Your task to perform on an android device: clear history in the chrome app Image 0: 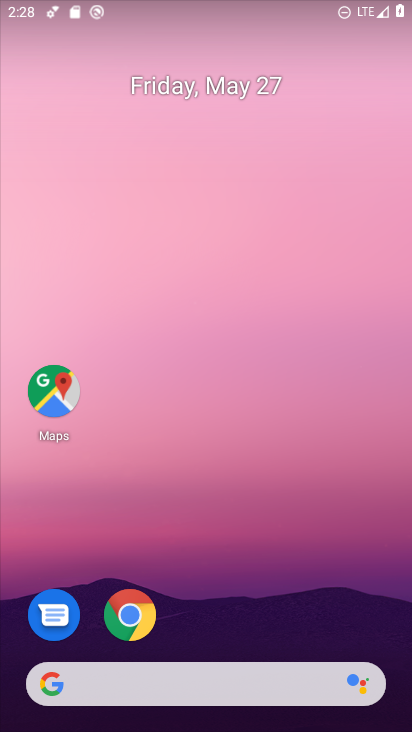
Step 0: drag from (220, 604) to (270, 171)
Your task to perform on an android device: clear history in the chrome app Image 1: 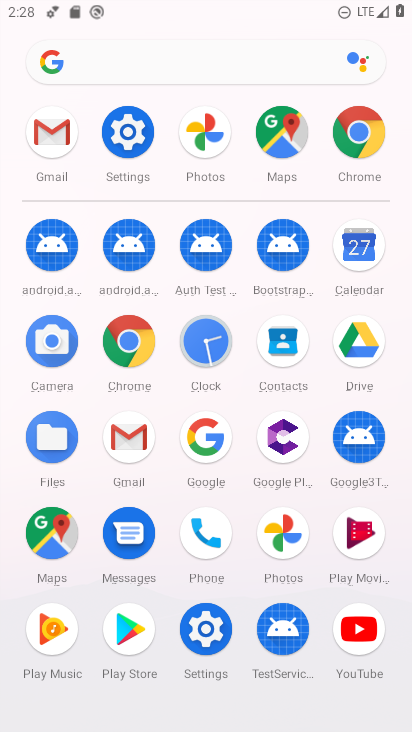
Step 1: click (119, 358)
Your task to perform on an android device: clear history in the chrome app Image 2: 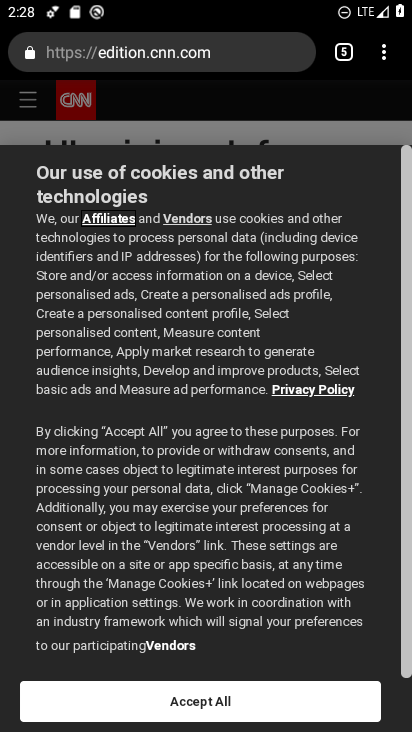
Step 2: click (380, 48)
Your task to perform on an android device: clear history in the chrome app Image 3: 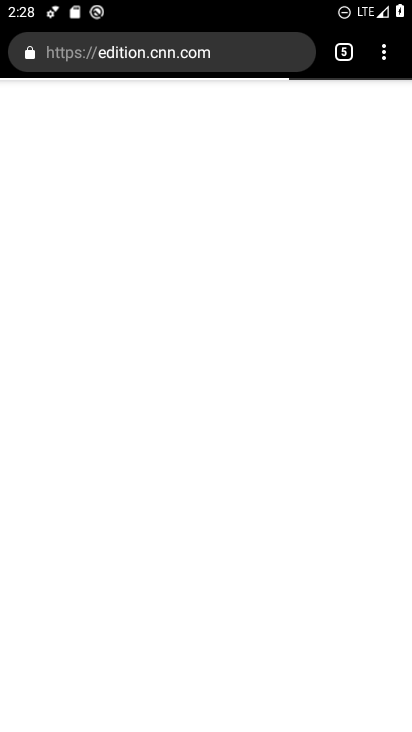
Step 3: click (386, 60)
Your task to perform on an android device: clear history in the chrome app Image 4: 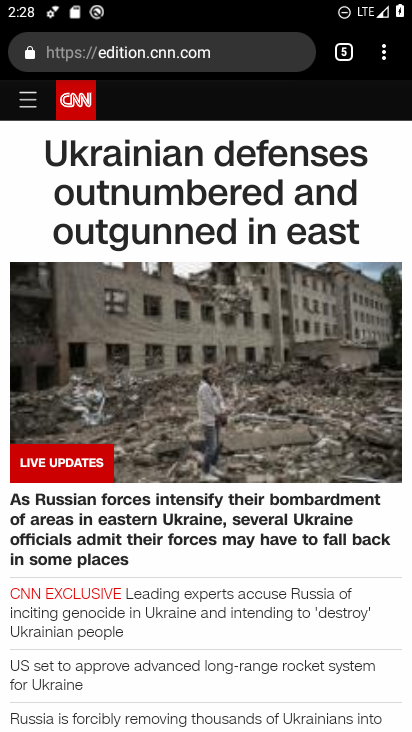
Step 4: click (382, 65)
Your task to perform on an android device: clear history in the chrome app Image 5: 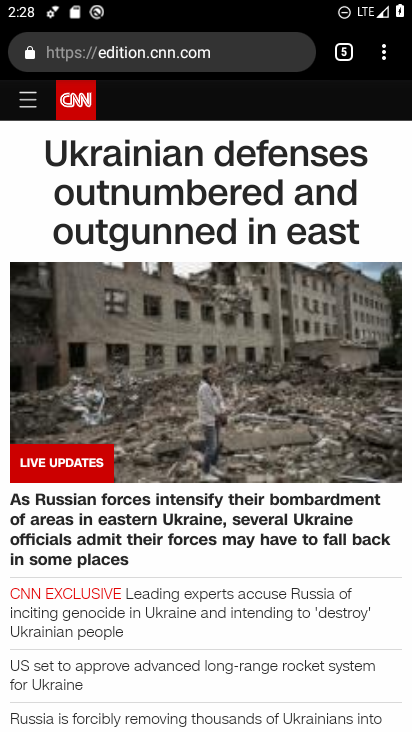
Step 5: click (380, 62)
Your task to perform on an android device: clear history in the chrome app Image 6: 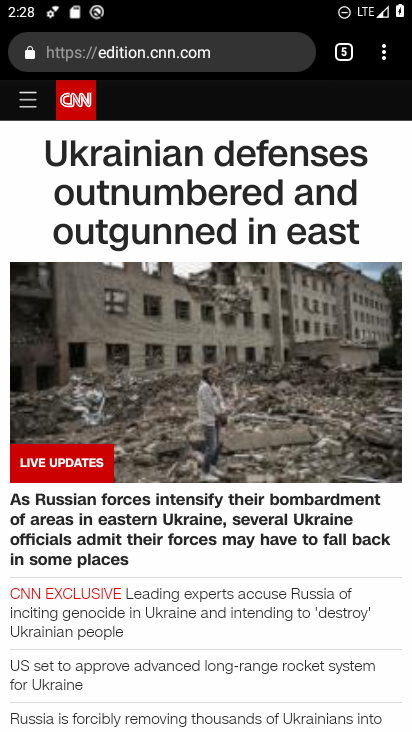
Step 6: click (385, 56)
Your task to perform on an android device: clear history in the chrome app Image 7: 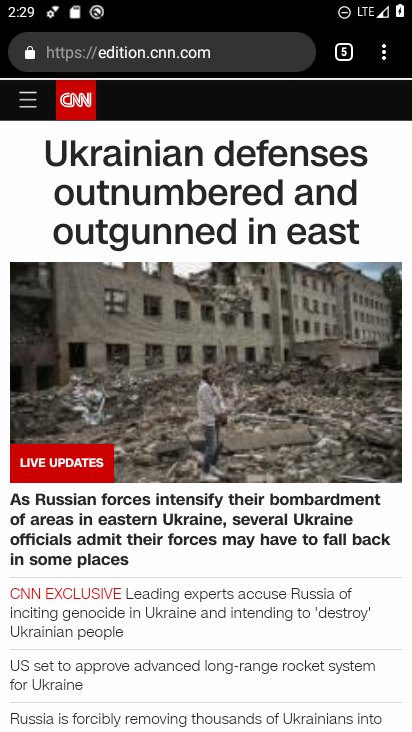
Step 7: click (385, 56)
Your task to perform on an android device: clear history in the chrome app Image 8: 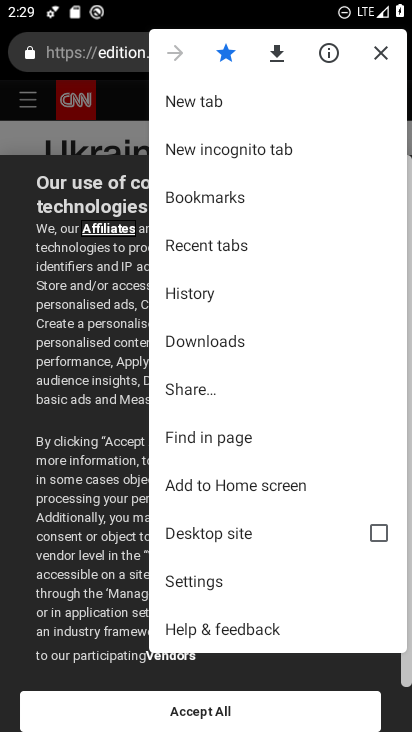
Step 8: click (211, 302)
Your task to perform on an android device: clear history in the chrome app Image 9: 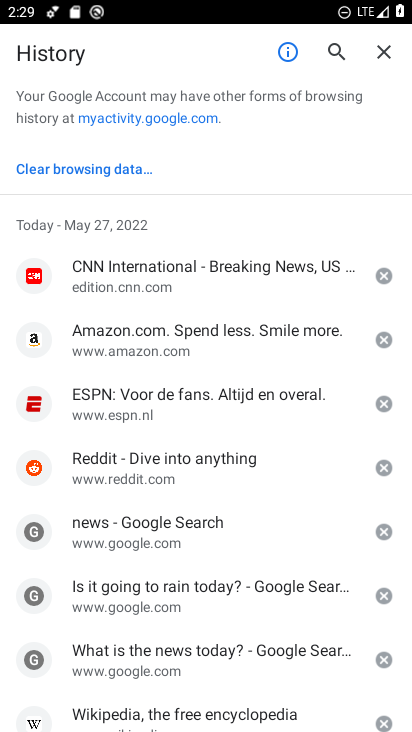
Step 9: click (82, 177)
Your task to perform on an android device: clear history in the chrome app Image 10: 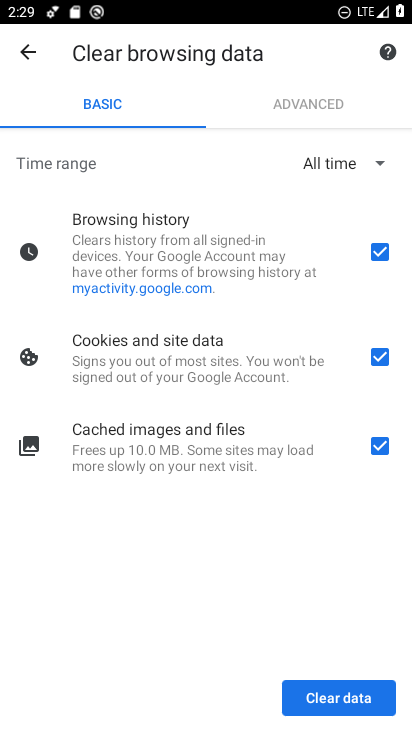
Step 10: click (320, 697)
Your task to perform on an android device: clear history in the chrome app Image 11: 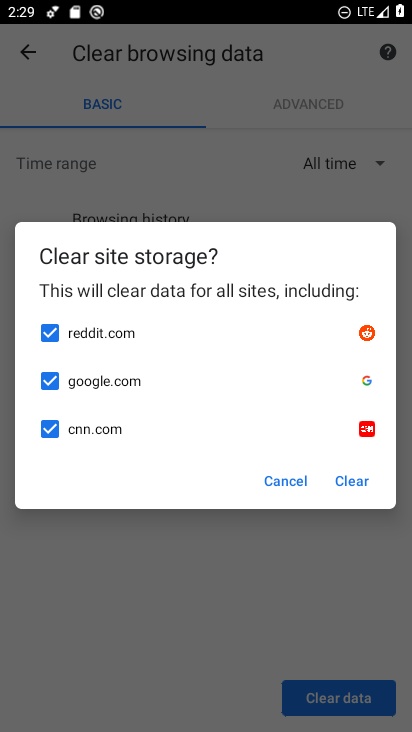
Step 11: click (331, 484)
Your task to perform on an android device: clear history in the chrome app Image 12: 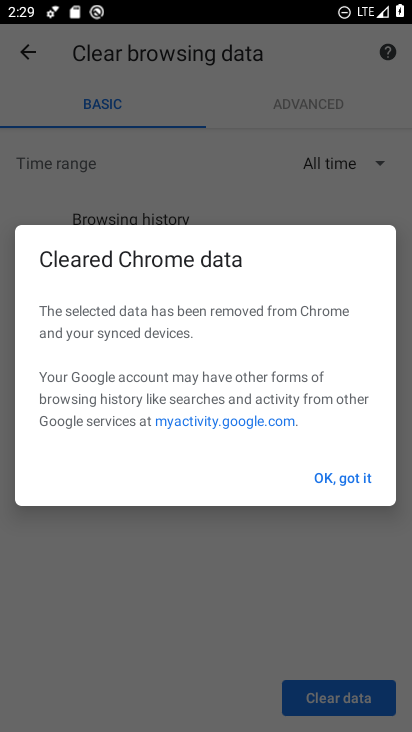
Step 12: click (330, 484)
Your task to perform on an android device: clear history in the chrome app Image 13: 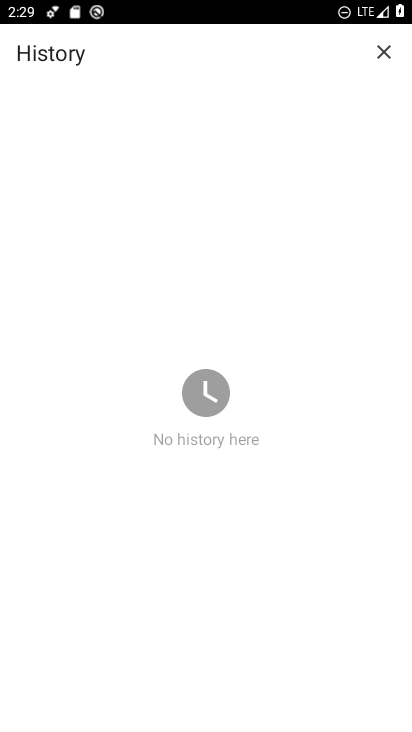
Step 13: task complete